Your task to perform on an android device: Open accessibility settings Image 0: 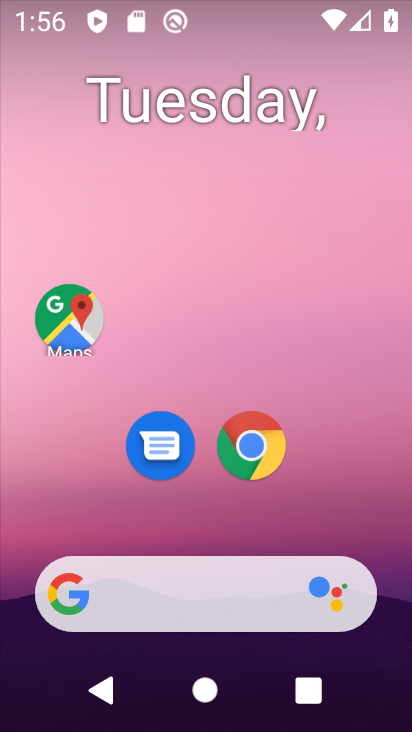
Step 0: drag from (84, 564) to (174, 31)
Your task to perform on an android device: Open accessibility settings Image 1: 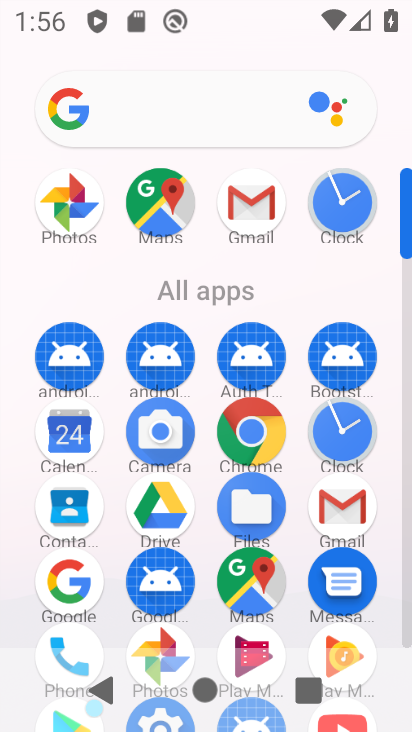
Step 1: drag from (180, 654) to (250, 311)
Your task to perform on an android device: Open accessibility settings Image 2: 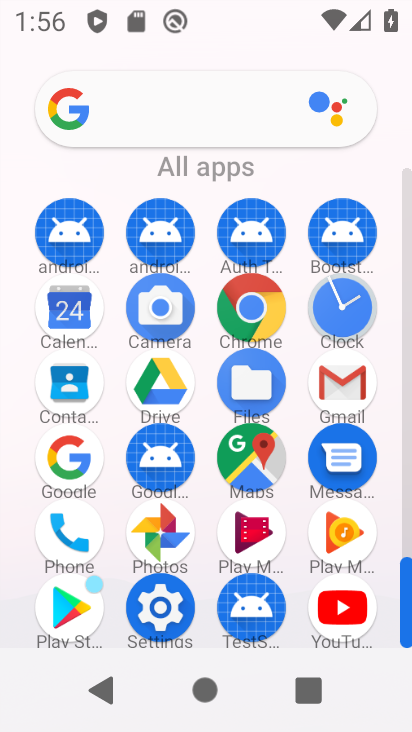
Step 2: click (165, 624)
Your task to perform on an android device: Open accessibility settings Image 3: 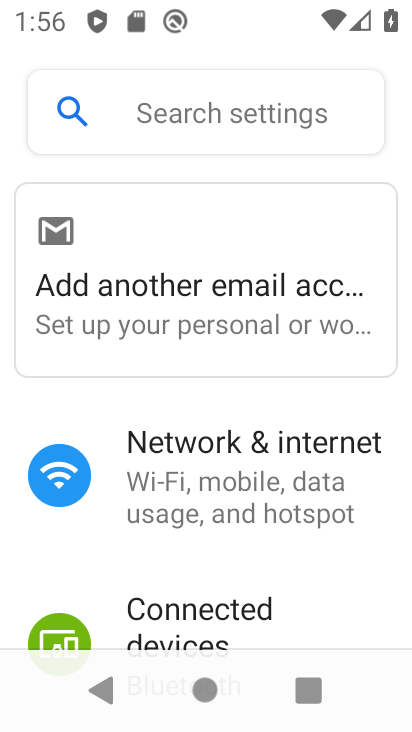
Step 3: drag from (119, 602) to (280, 60)
Your task to perform on an android device: Open accessibility settings Image 4: 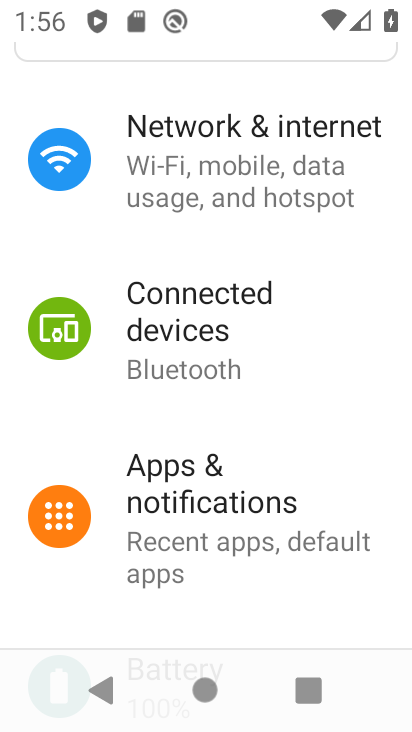
Step 4: drag from (200, 584) to (297, 96)
Your task to perform on an android device: Open accessibility settings Image 5: 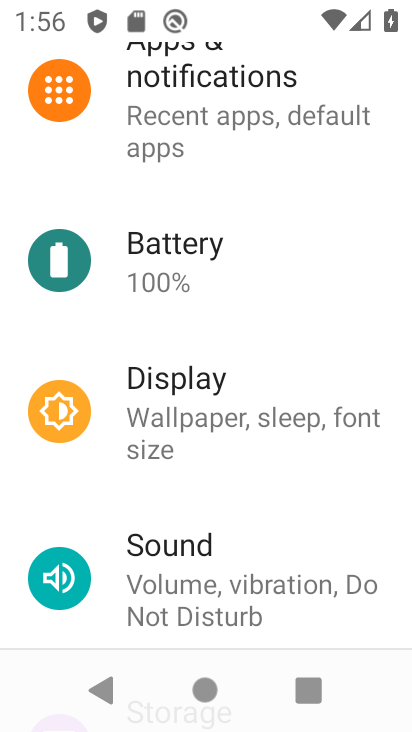
Step 5: drag from (201, 528) to (308, 107)
Your task to perform on an android device: Open accessibility settings Image 6: 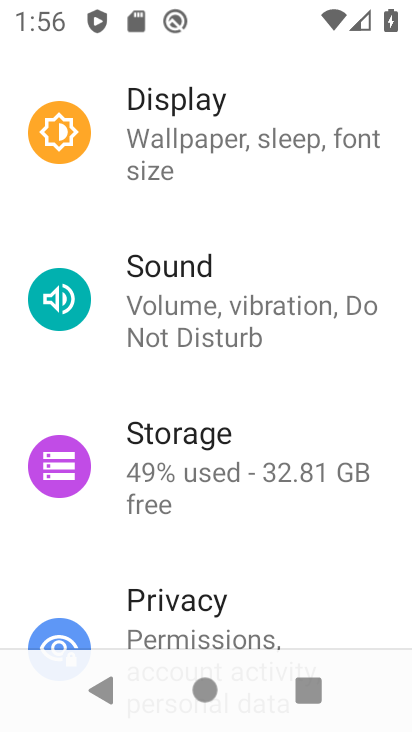
Step 6: drag from (180, 555) to (308, 119)
Your task to perform on an android device: Open accessibility settings Image 7: 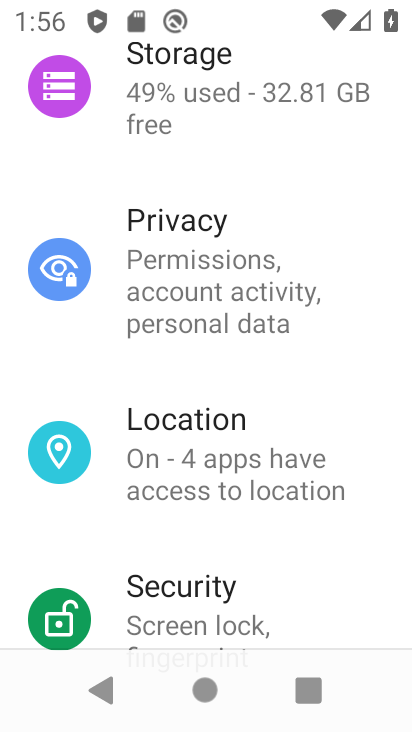
Step 7: drag from (144, 597) to (267, 137)
Your task to perform on an android device: Open accessibility settings Image 8: 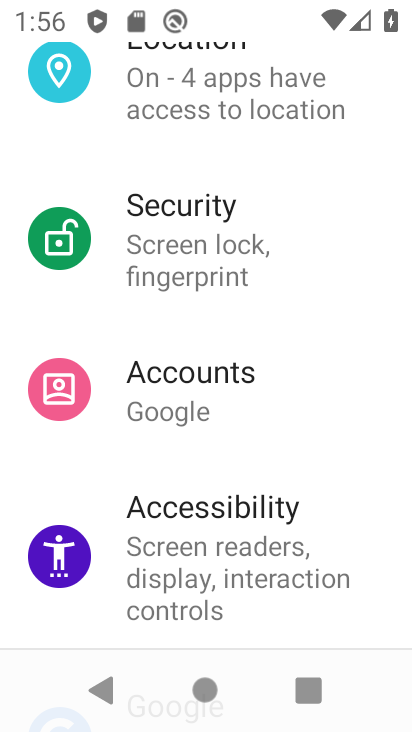
Step 8: click (194, 560)
Your task to perform on an android device: Open accessibility settings Image 9: 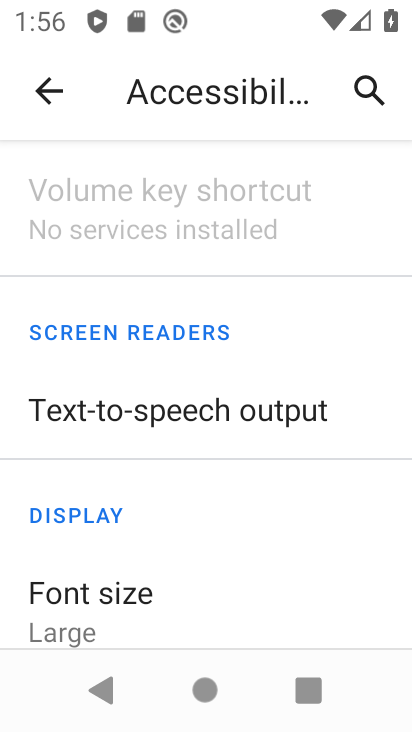
Step 9: task complete